Your task to perform on an android device: Open Youtube and go to "Your channel" Image 0: 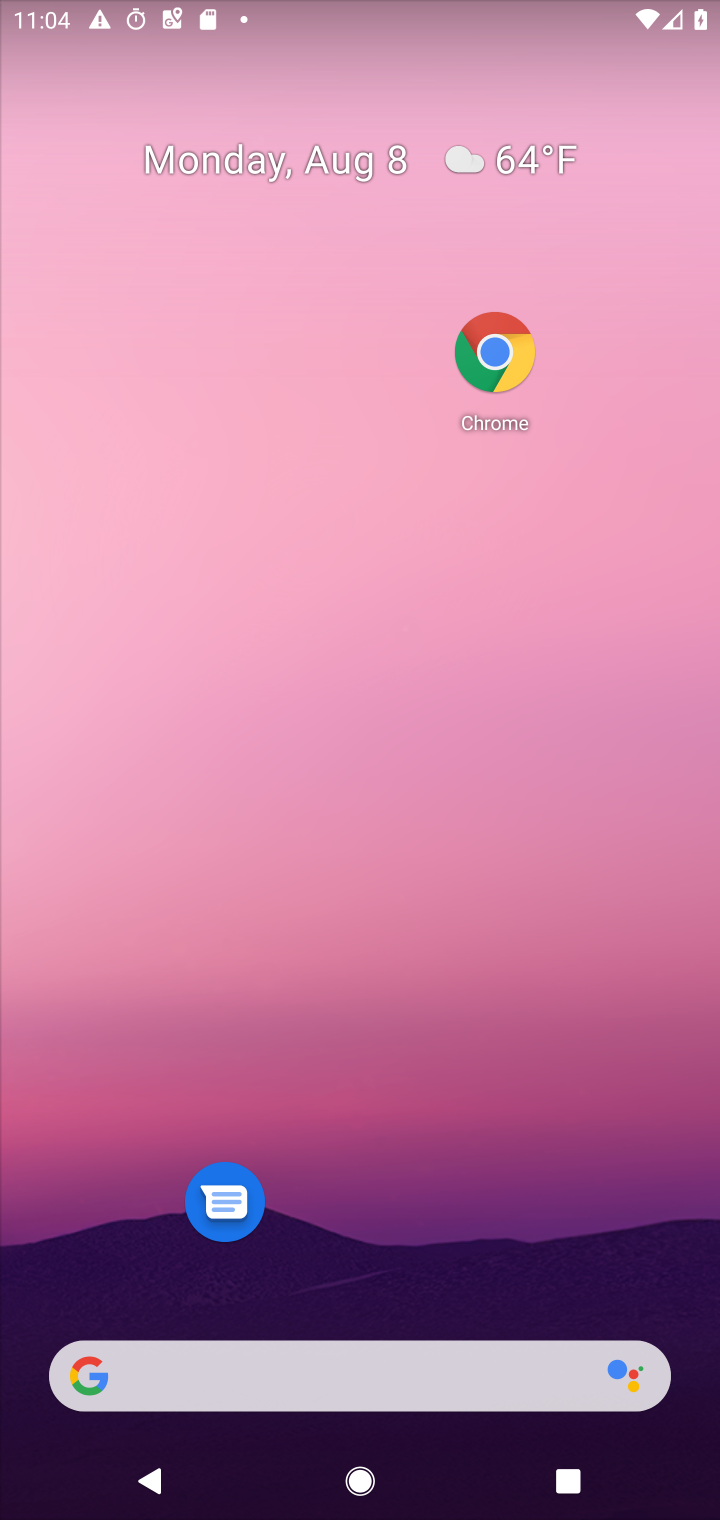
Step 0: press home button
Your task to perform on an android device: Open Youtube and go to "Your channel" Image 1: 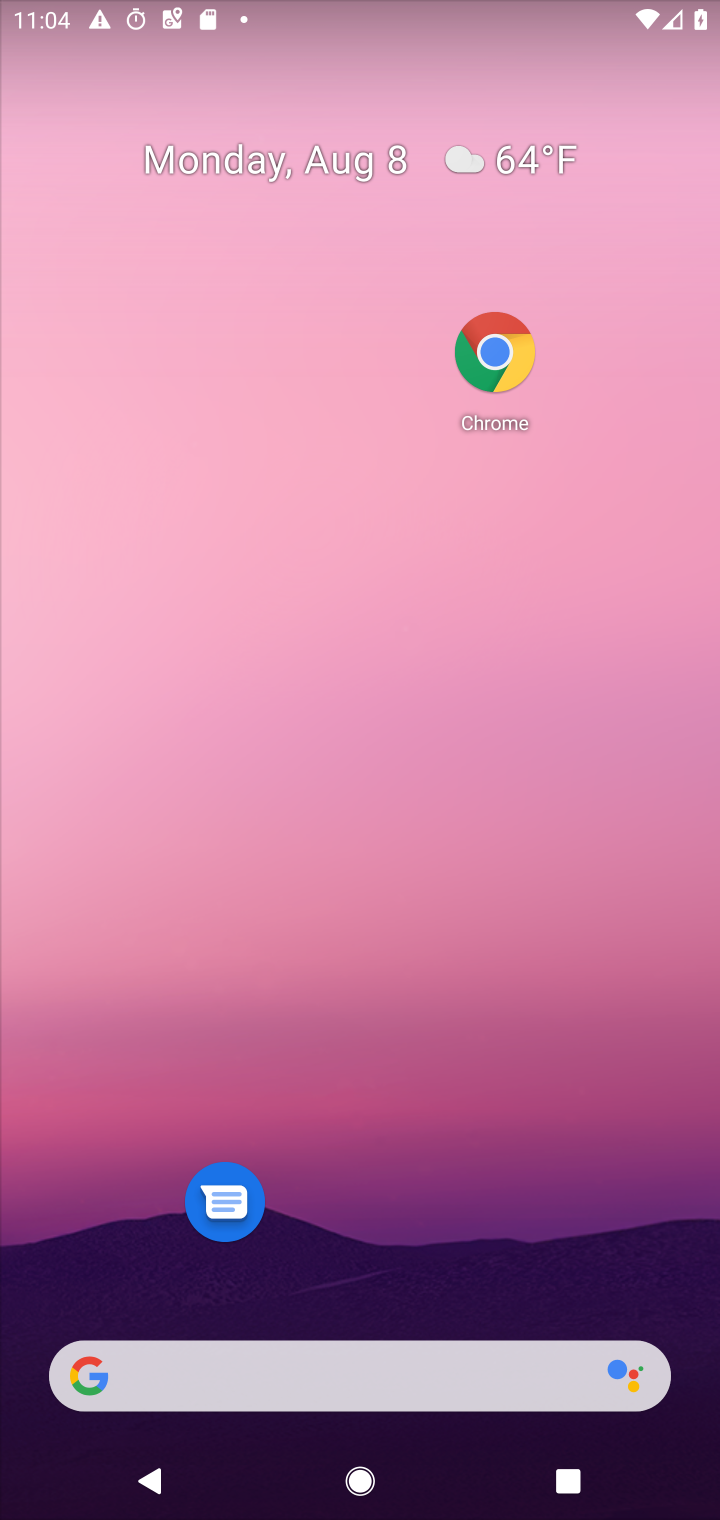
Step 1: drag from (454, 487) to (442, 259)
Your task to perform on an android device: Open Youtube and go to "Your channel" Image 2: 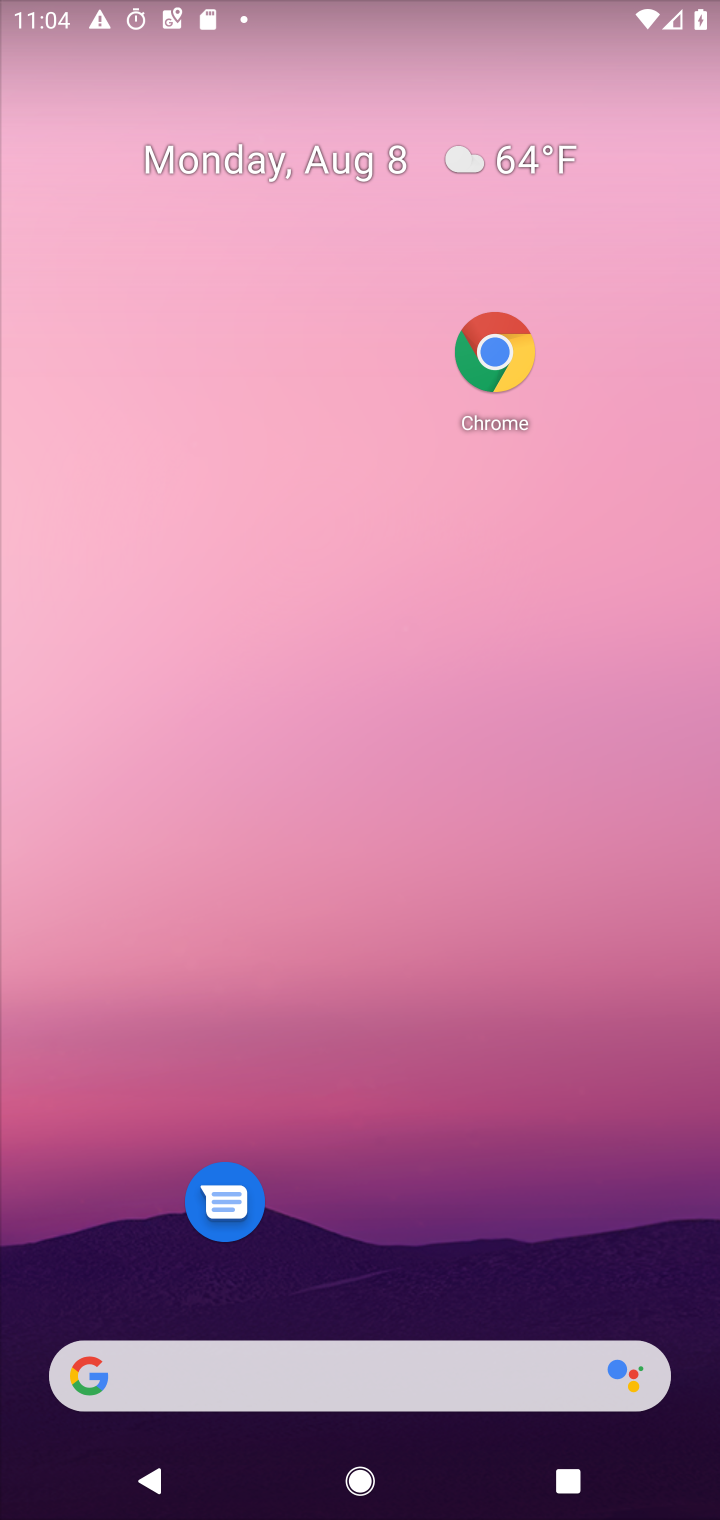
Step 2: drag from (345, 1408) to (313, 220)
Your task to perform on an android device: Open Youtube and go to "Your channel" Image 3: 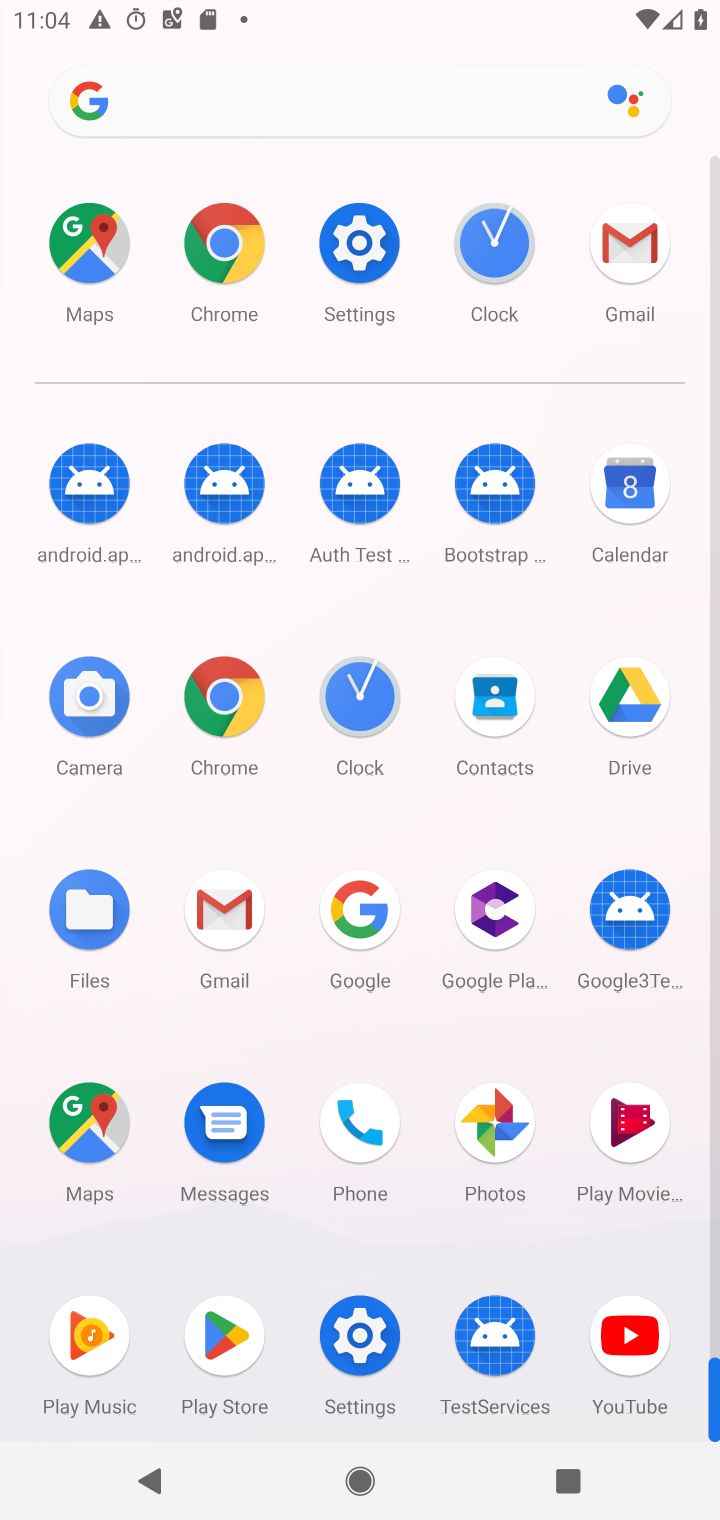
Step 3: click (630, 1335)
Your task to perform on an android device: Open Youtube and go to "Your channel" Image 4: 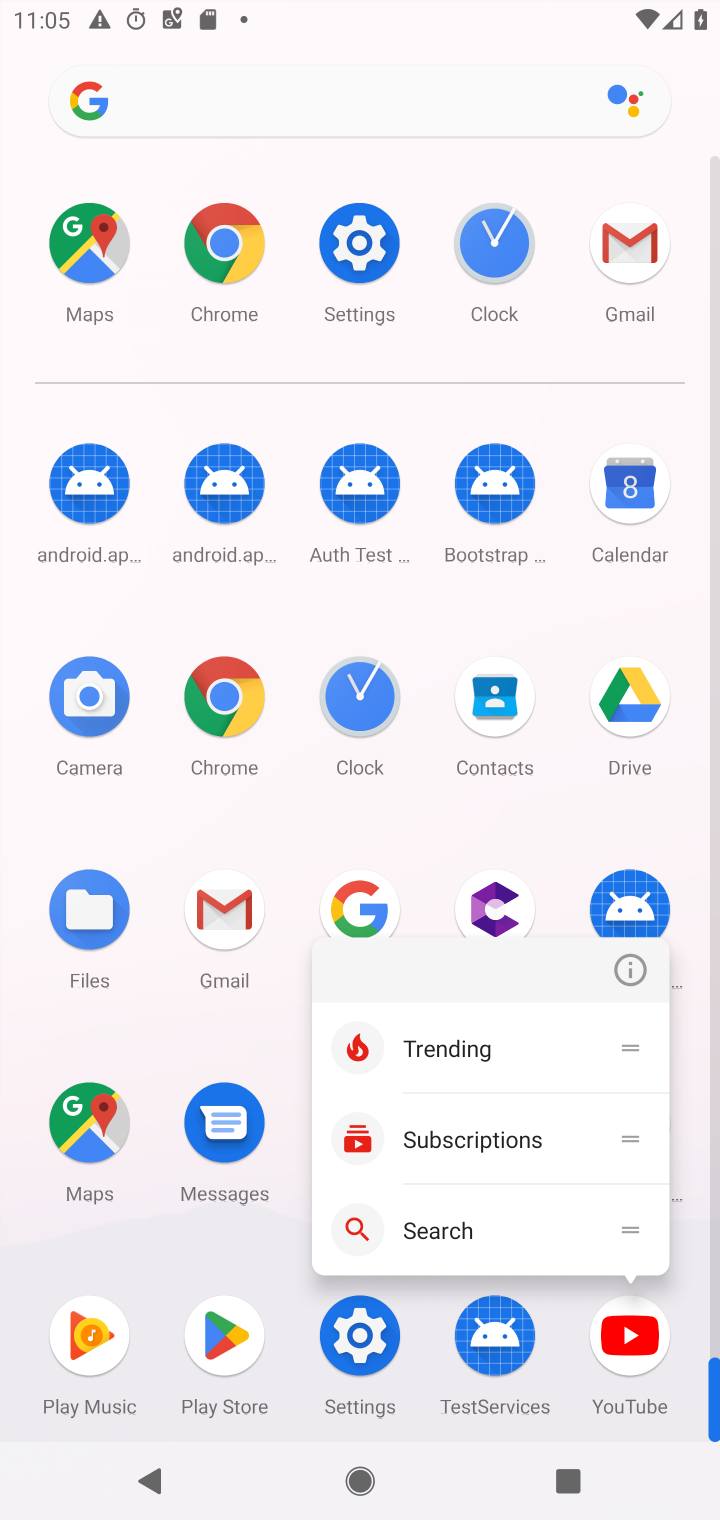
Step 4: click (620, 1360)
Your task to perform on an android device: Open Youtube and go to "Your channel" Image 5: 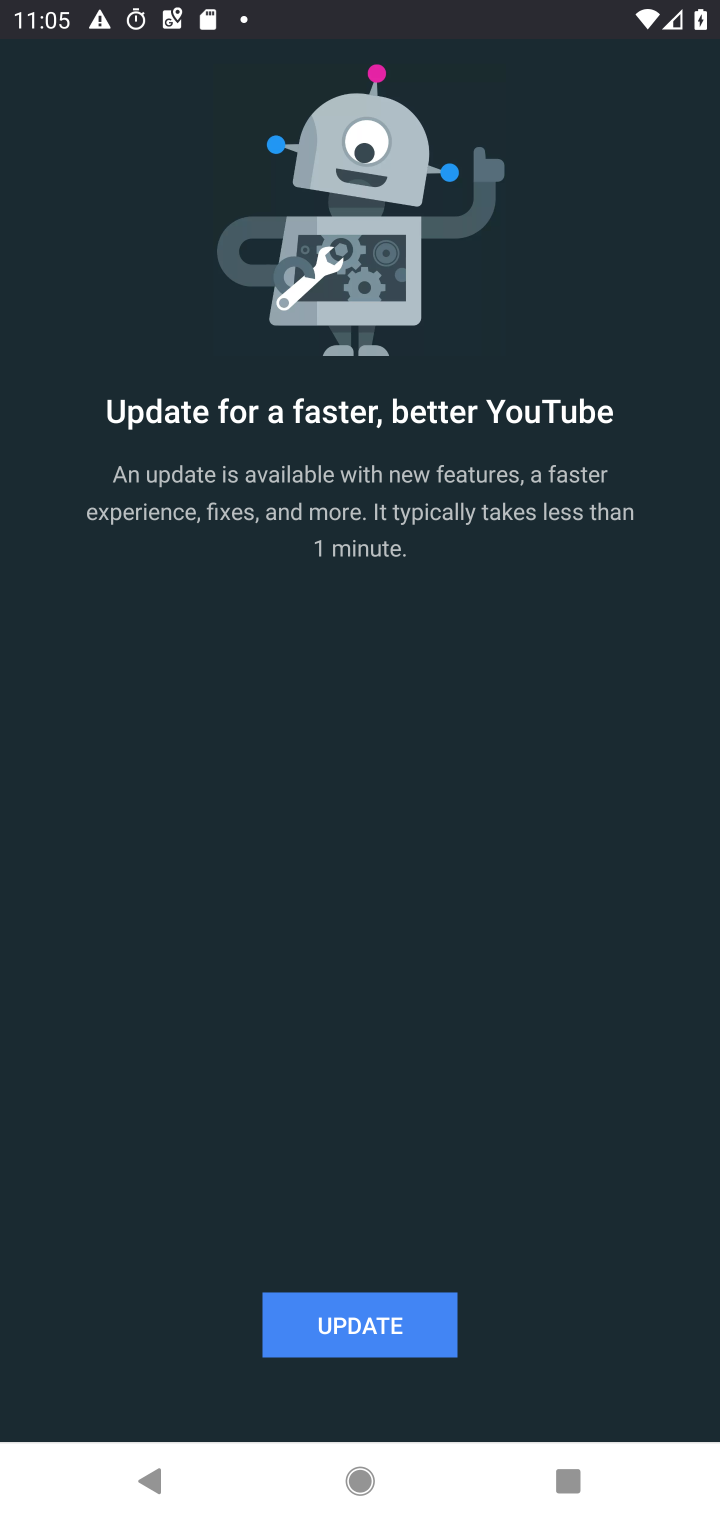
Step 5: task complete